Your task to perform on an android device: Clear the shopping cart on costco. Image 0: 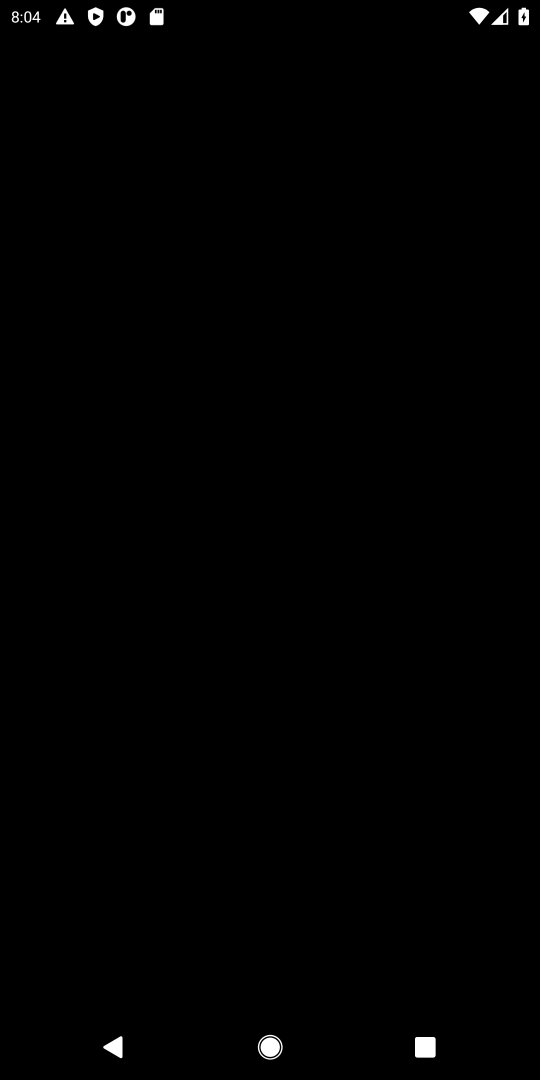
Step 0: press home button
Your task to perform on an android device: Clear the shopping cart on costco. Image 1: 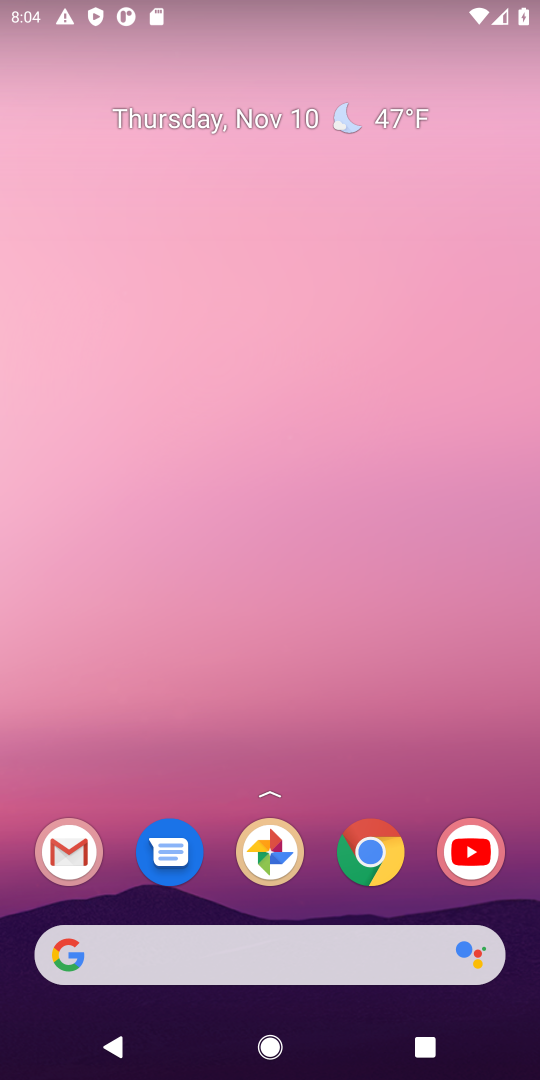
Step 1: click (362, 853)
Your task to perform on an android device: Clear the shopping cart on costco. Image 2: 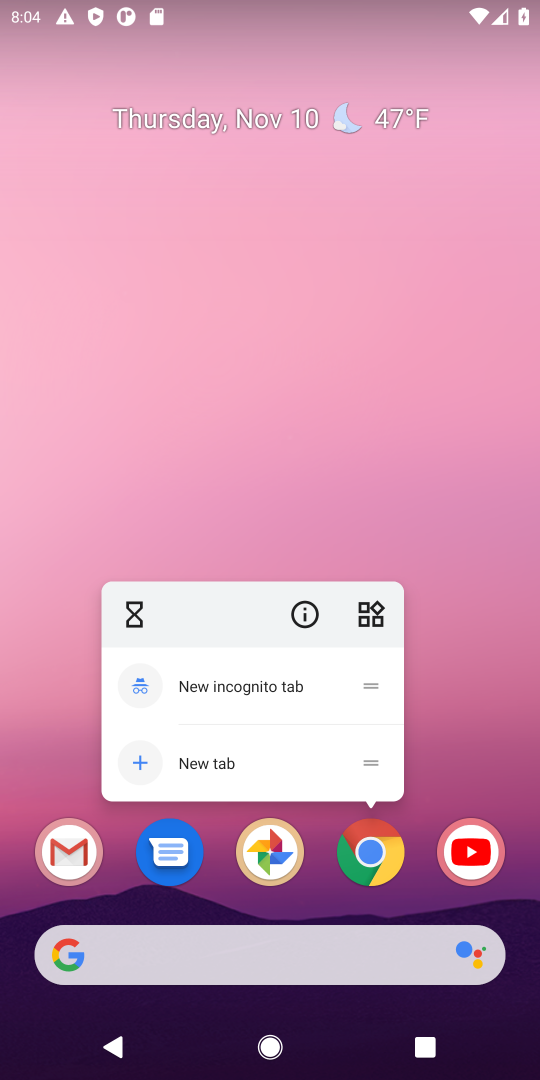
Step 2: click (361, 849)
Your task to perform on an android device: Clear the shopping cart on costco. Image 3: 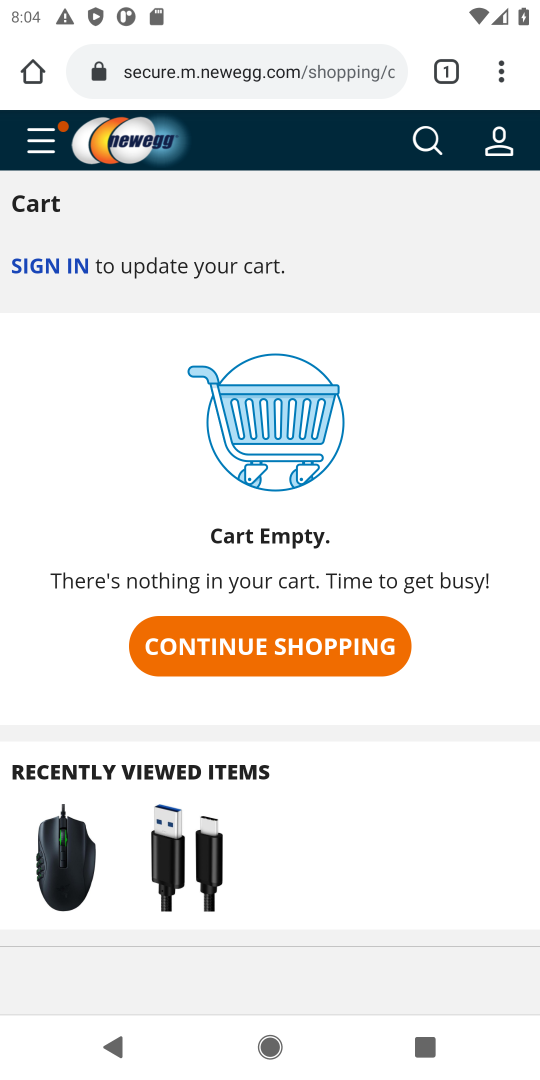
Step 3: click (222, 78)
Your task to perform on an android device: Clear the shopping cart on costco. Image 4: 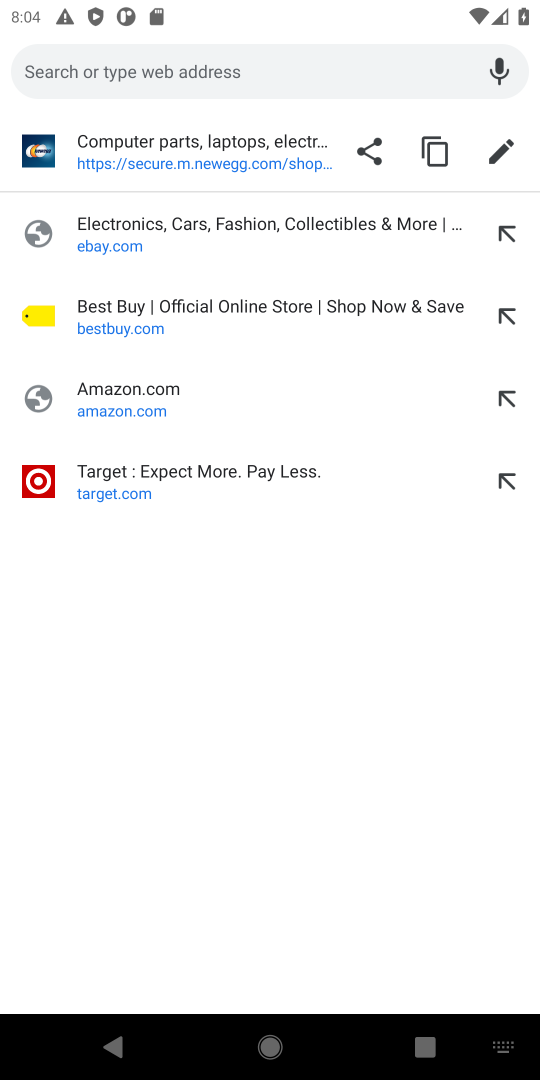
Step 4: type " costco"
Your task to perform on an android device: Clear the shopping cart on costco. Image 5: 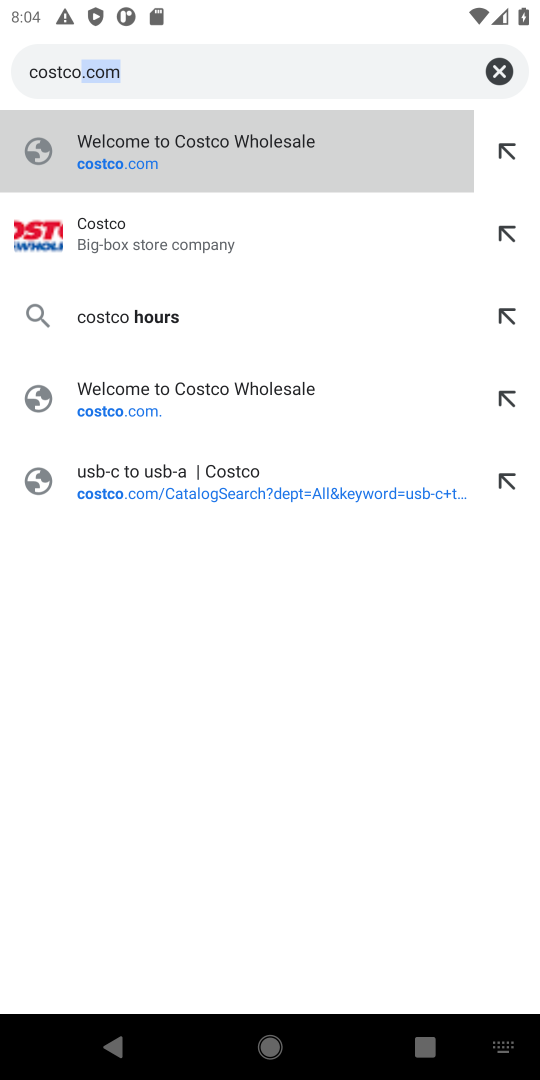
Step 5: press enter
Your task to perform on an android device: Clear the shopping cart on costco. Image 6: 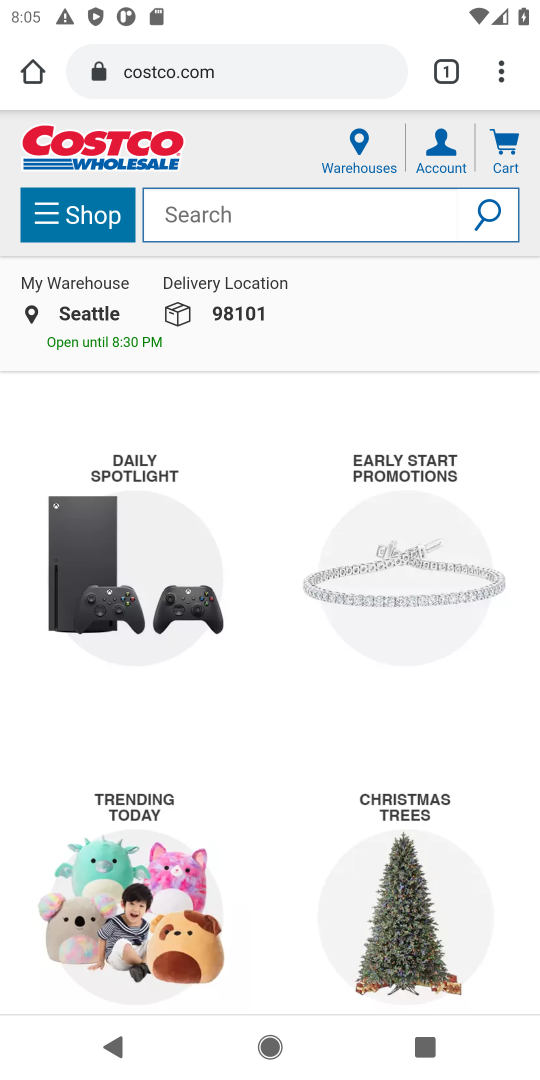
Step 6: click (502, 138)
Your task to perform on an android device: Clear the shopping cart on costco. Image 7: 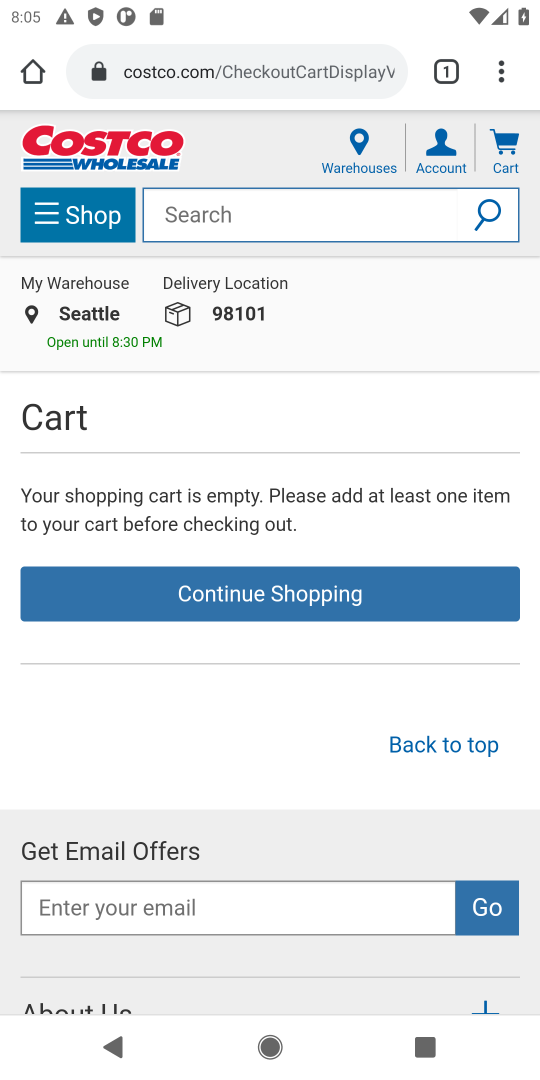
Step 7: task complete